Your task to perform on an android device: empty trash in google photos Image 0: 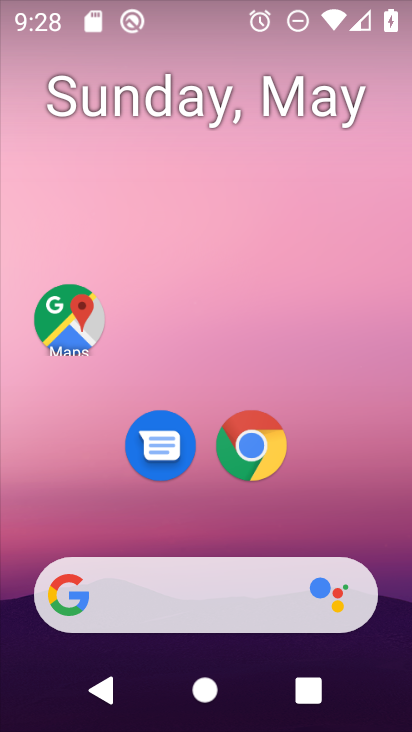
Step 0: drag from (274, 588) to (306, 356)
Your task to perform on an android device: empty trash in google photos Image 1: 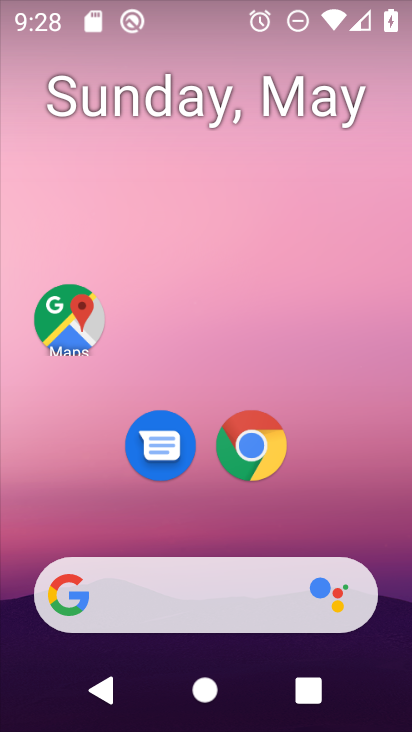
Step 1: drag from (274, 615) to (280, 184)
Your task to perform on an android device: empty trash in google photos Image 2: 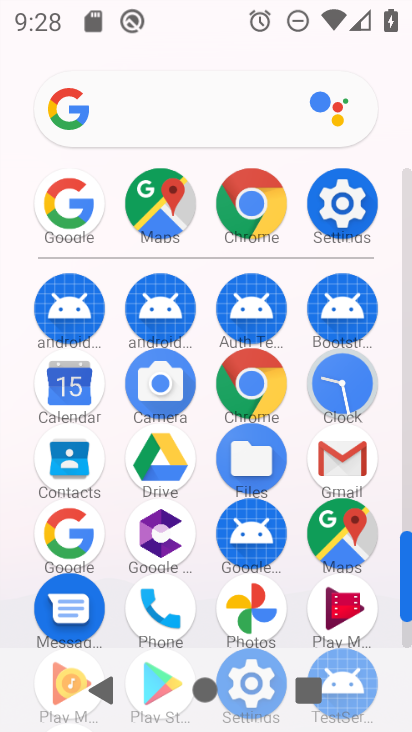
Step 2: click (261, 594)
Your task to perform on an android device: empty trash in google photos Image 3: 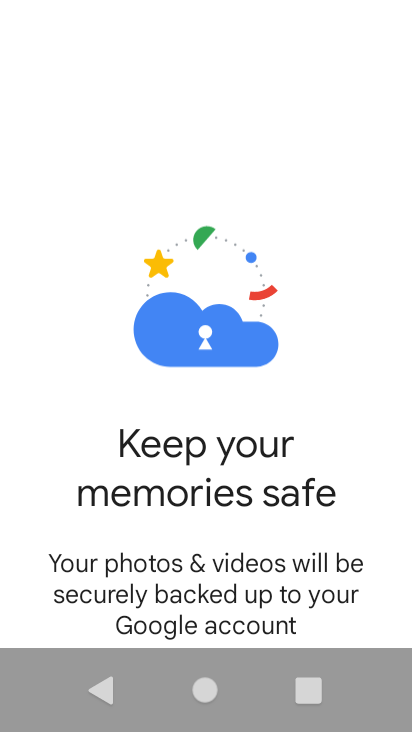
Step 3: click (290, 485)
Your task to perform on an android device: empty trash in google photos Image 4: 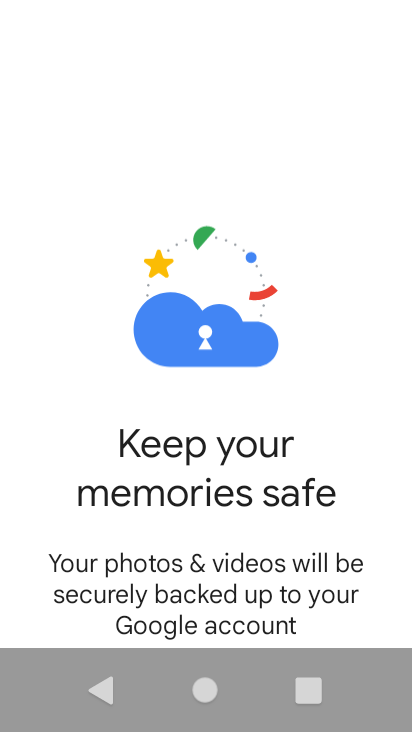
Step 4: click (290, 485)
Your task to perform on an android device: empty trash in google photos Image 5: 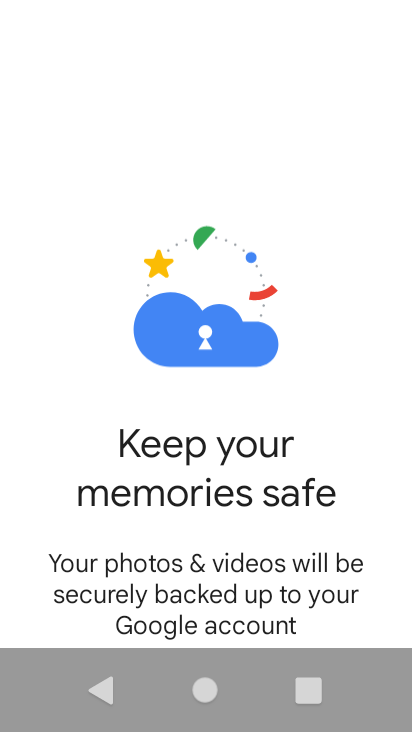
Step 5: click (290, 485)
Your task to perform on an android device: empty trash in google photos Image 6: 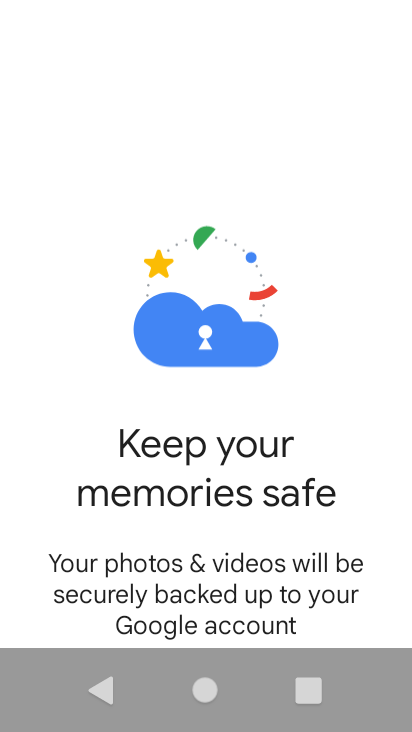
Step 6: click (290, 485)
Your task to perform on an android device: empty trash in google photos Image 7: 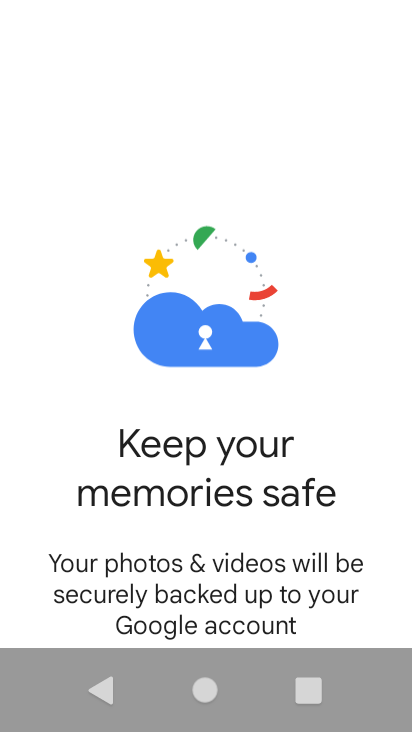
Step 7: click (290, 485)
Your task to perform on an android device: empty trash in google photos Image 8: 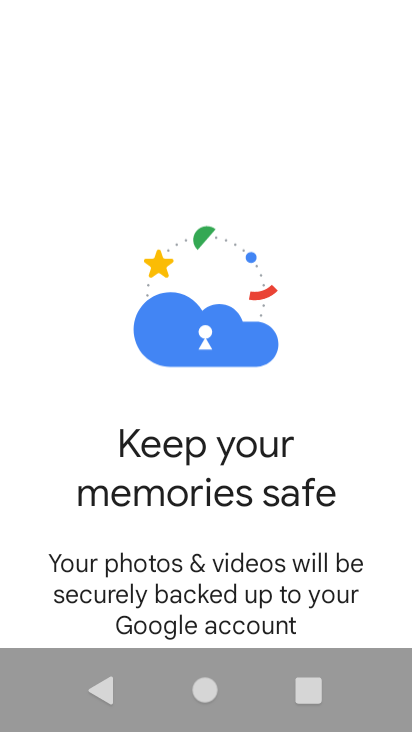
Step 8: click (290, 485)
Your task to perform on an android device: empty trash in google photos Image 9: 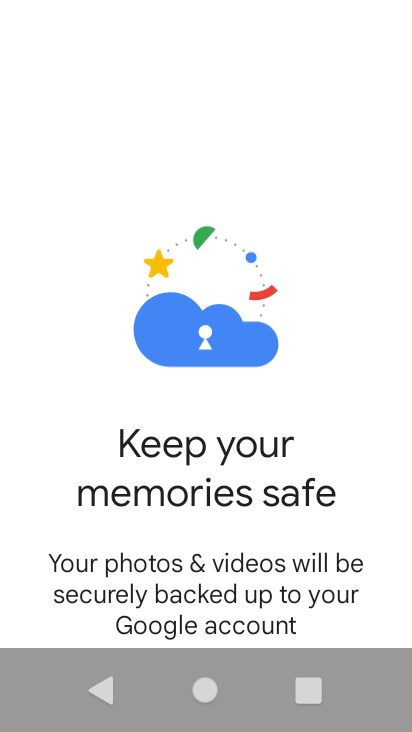
Step 9: task complete